Your task to perform on an android device: Go to Wikipedia Image 0: 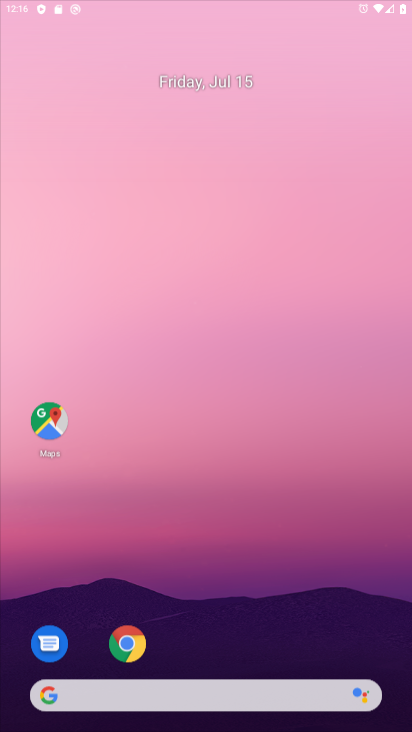
Step 0: press home button
Your task to perform on an android device: Go to Wikipedia Image 1: 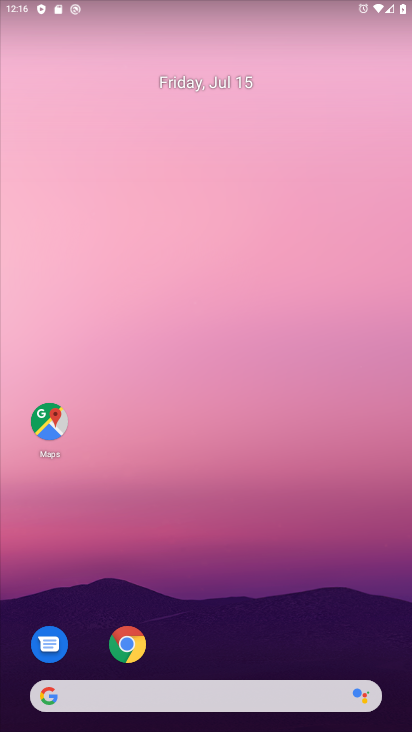
Step 1: click (125, 644)
Your task to perform on an android device: Go to Wikipedia Image 2: 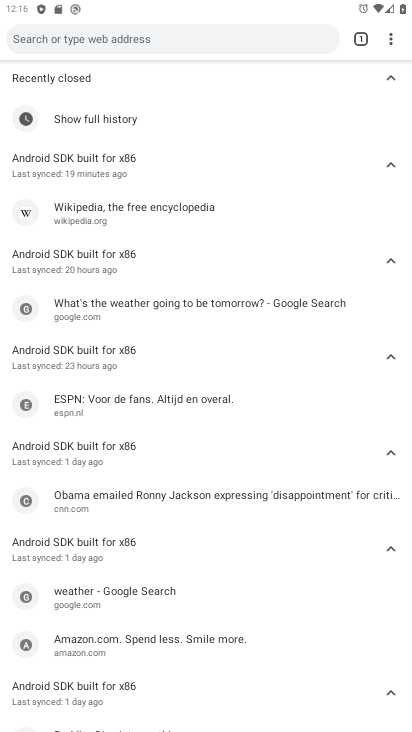
Step 2: click (397, 38)
Your task to perform on an android device: Go to Wikipedia Image 3: 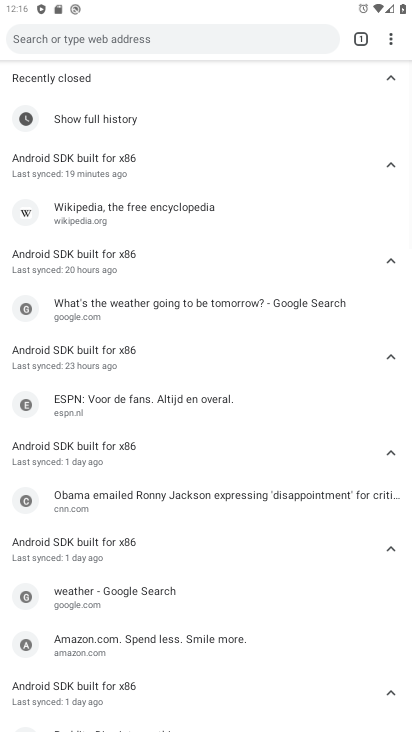
Step 3: click (391, 45)
Your task to perform on an android device: Go to Wikipedia Image 4: 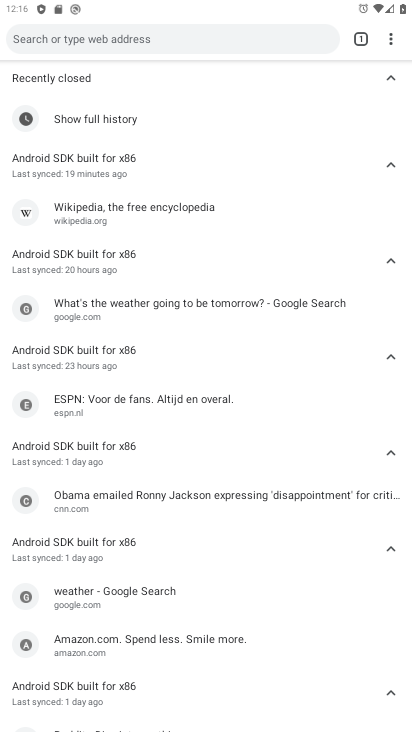
Step 4: click (389, 44)
Your task to perform on an android device: Go to Wikipedia Image 5: 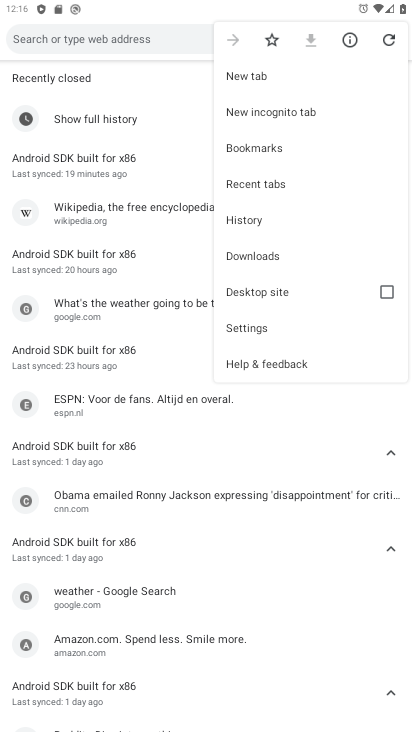
Step 5: click (254, 65)
Your task to perform on an android device: Go to Wikipedia Image 6: 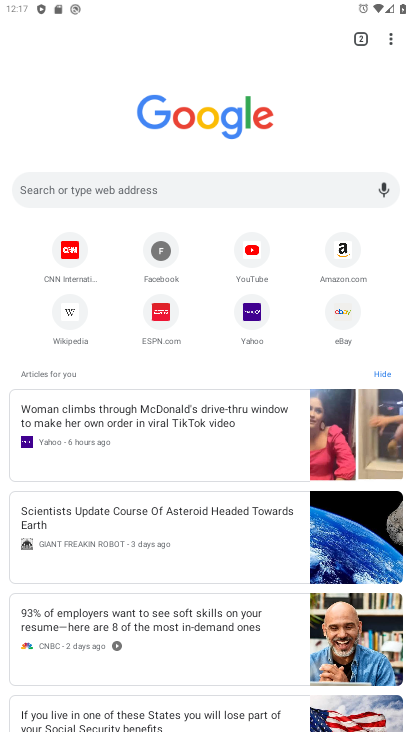
Step 6: click (70, 309)
Your task to perform on an android device: Go to Wikipedia Image 7: 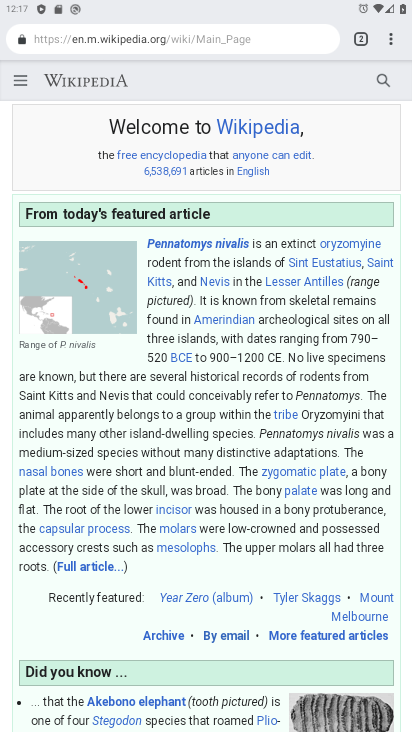
Step 7: task complete